Your task to perform on an android device: Turn on the flashlight Image 0: 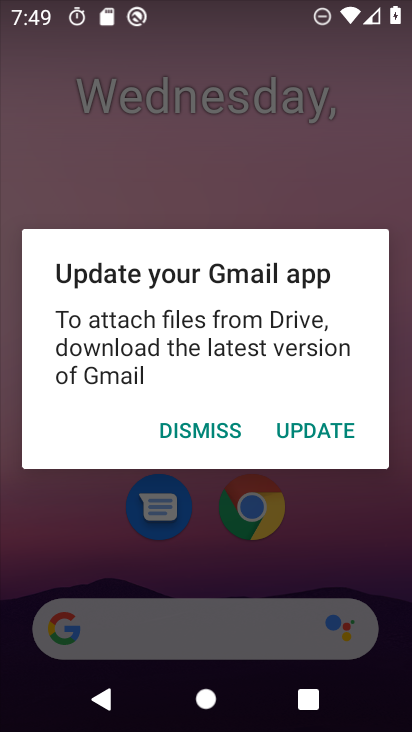
Step 0: press home button
Your task to perform on an android device: Turn on the flashlight Image 1: 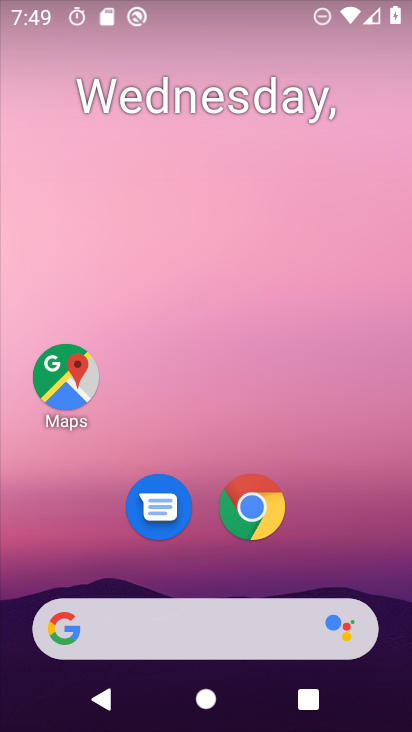
Step 1: drag from (252, 581) to (245, 159)
Your task to perform on an android device: Turn on the flashlight Image 2: 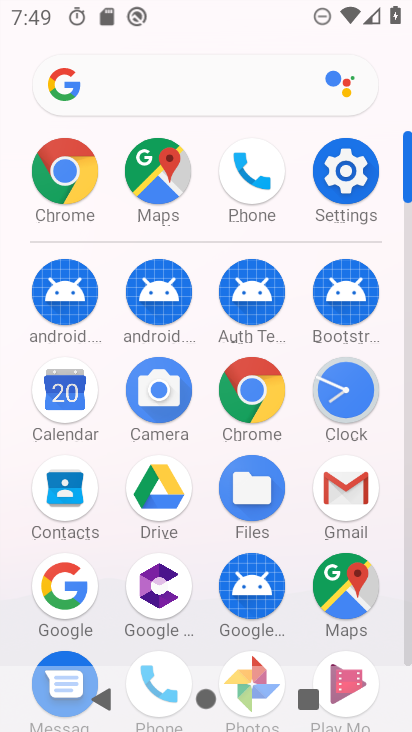
Step 2: click (367, 186)
Your task to perform on an android device: Turn on the flashlight Image 3: 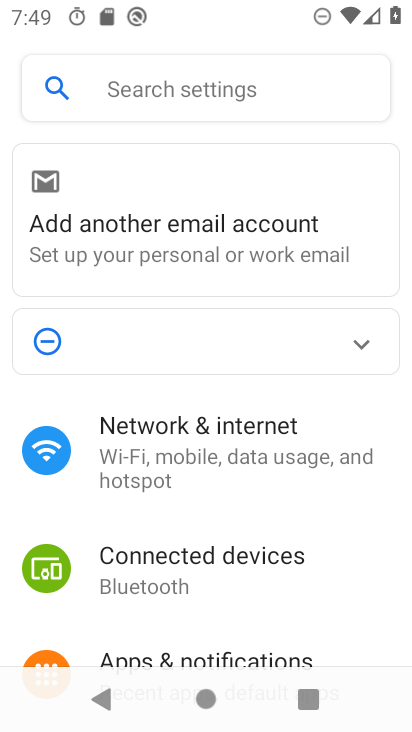
Step 3: click (149, 83)
Your task to perform on an android device: Turn on the flashlight Image 4: 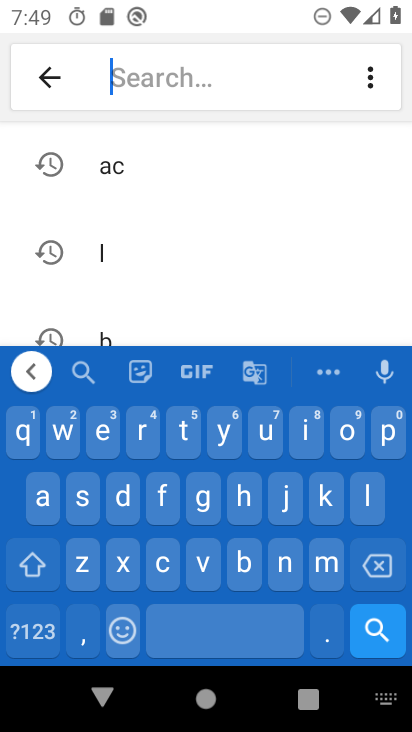
Step 4: click (158, 511)
Your task to perform on an android device: Turn on the flashlight Image 5: 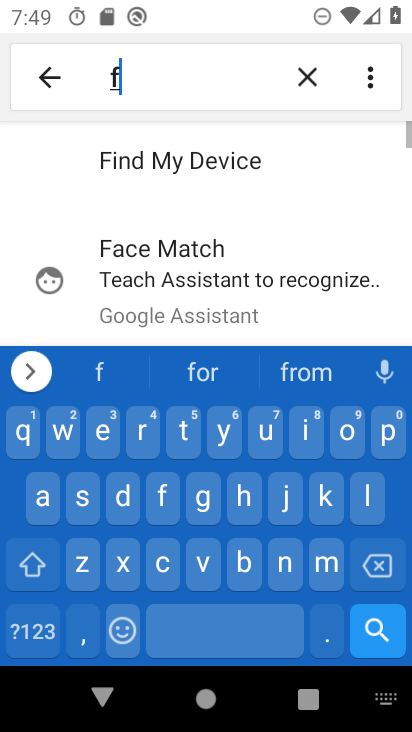
Step 5: click (370, 493)
Your task to perform on an android device: Turn on the flashlight Image 6: 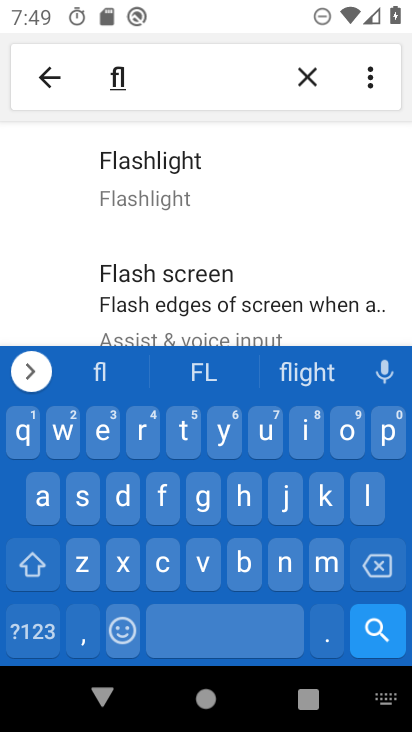
Step 6: click (173, 180)
Your task to perform on an android device: Turn on the flashlight Image 7: 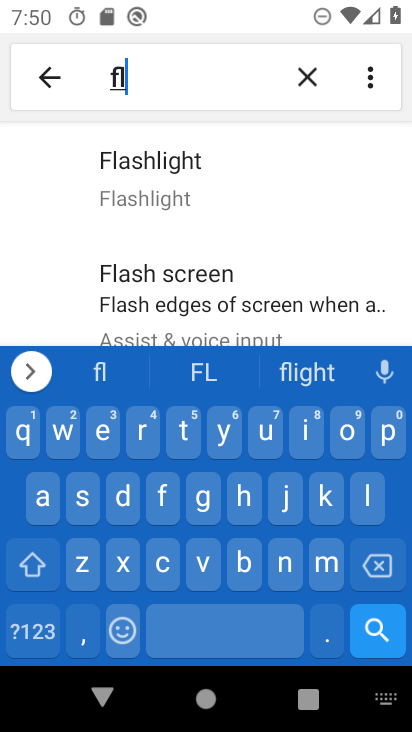
Step 7: click (184, 175)
Your task to perform on an android device: Turn on the flashlight Image 8: 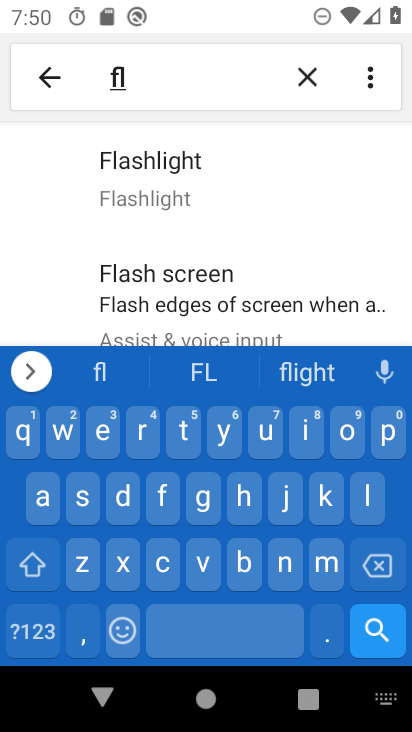
Step 8: task complete